Your task to perform on an android device: Open Google Image 0: 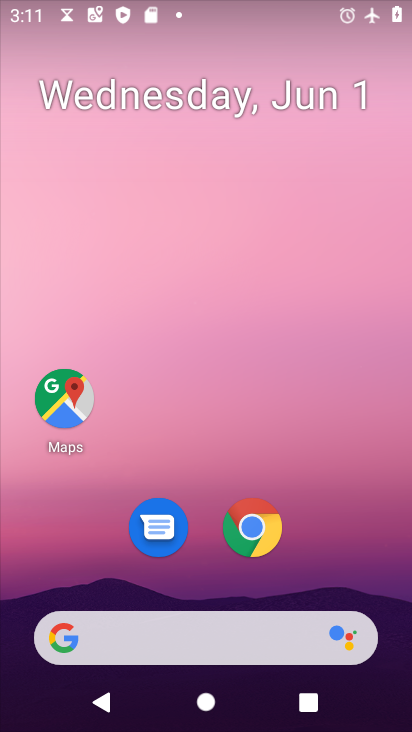
Step 0: drag from (320, 561) to (250, 40)
Your task to perform on an android device: Open Google Image 1: 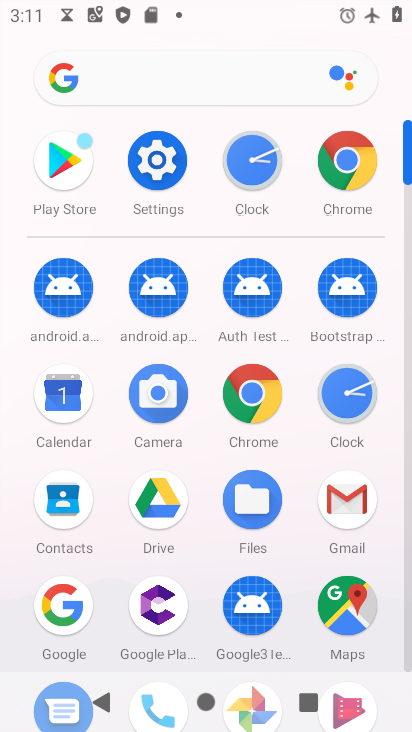
Step 1: click (56, 603)
Your task to perform on an android device: Open Google Image 2: 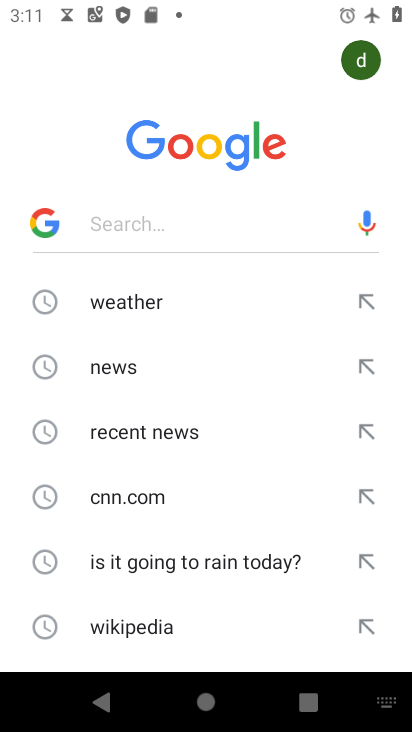
Step 2: task complete